Your task to perform on an android device: Search for sushi restaurants on Maps Image 0: 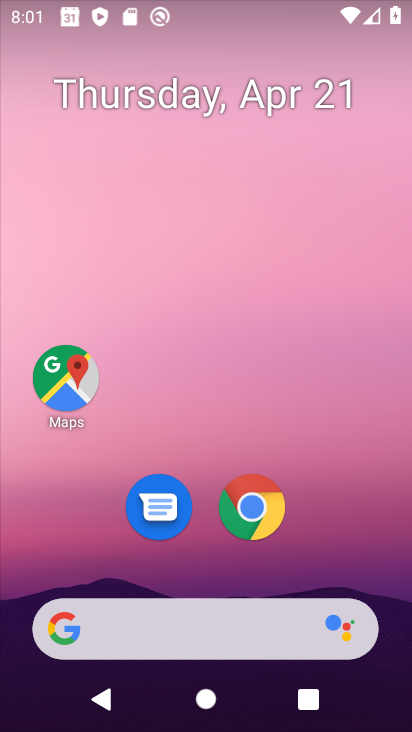
Step 0: click (49, 368)
Your task to perform on an android device: Search for sushi restaurants on Maps Image 1: 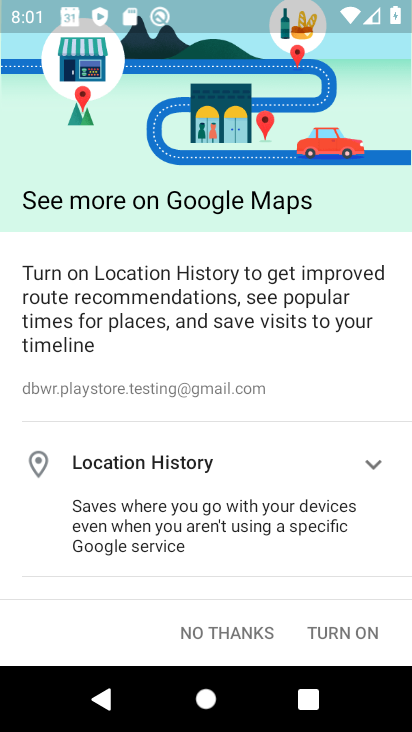
Step 1: click (218, 626)
Your task to perform on an android device: Search for sushi restaurants on Maps Image 2: 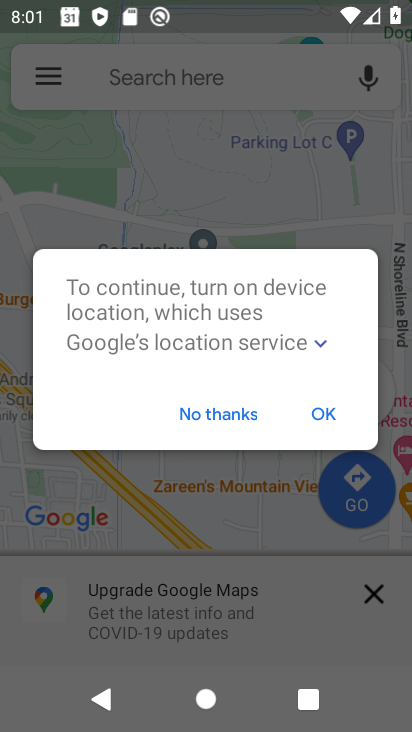
Step 2: click (195, 406)
Your task to perform on an android device: Search for sushi restaurants on Maps Image 3: 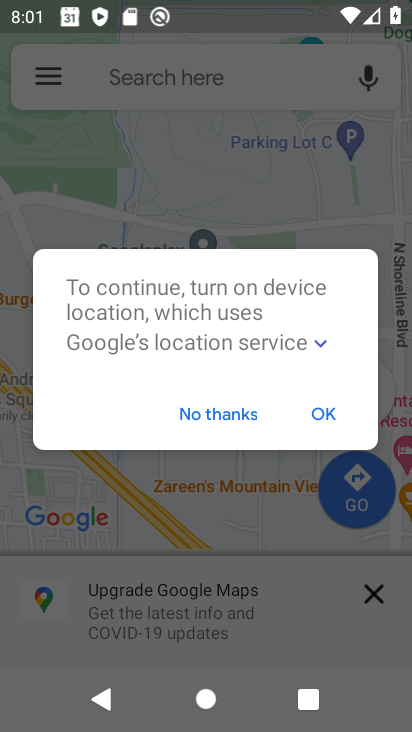
Step 3: click (205, 411)
Your task to perform on an android device: Search for sushi restaurants on Maps Image 4: 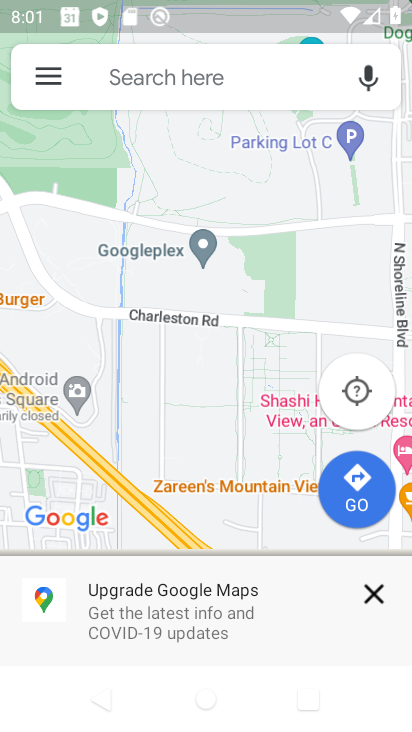
Step 4: click (170, 77)
Your task to perform on an android device: Search for sushi restaurants on Maps Image 5: 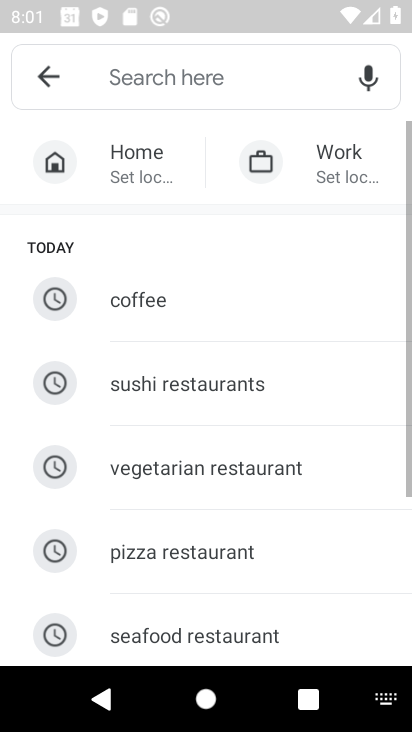
Step 5: click (227, 375)
Your task to perform on an android device: Search for sushi restaurants on Maps Image 6: 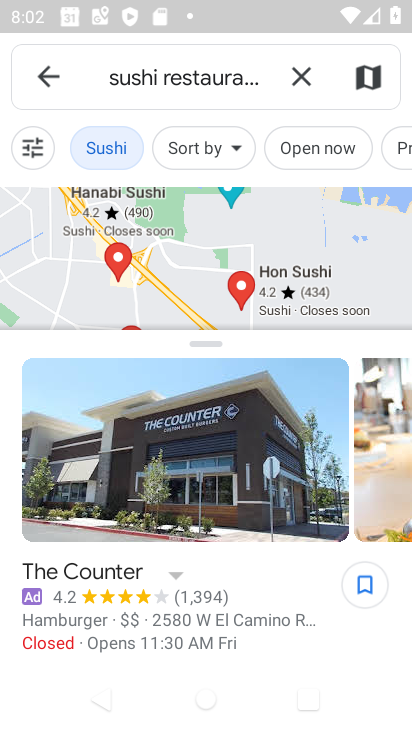
Step 6: task complete